Your task to perform on an android device: Go to Google maps Image 0: 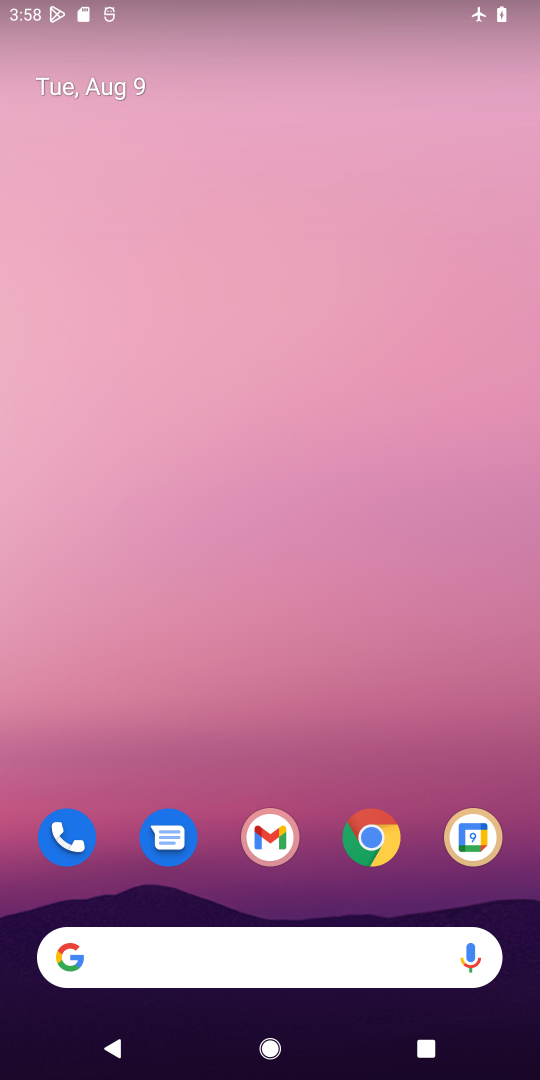
Step 0: drag from (239, 974) to (310, 310)
Your task to perform on an android device: Go to Google maps Image 1: 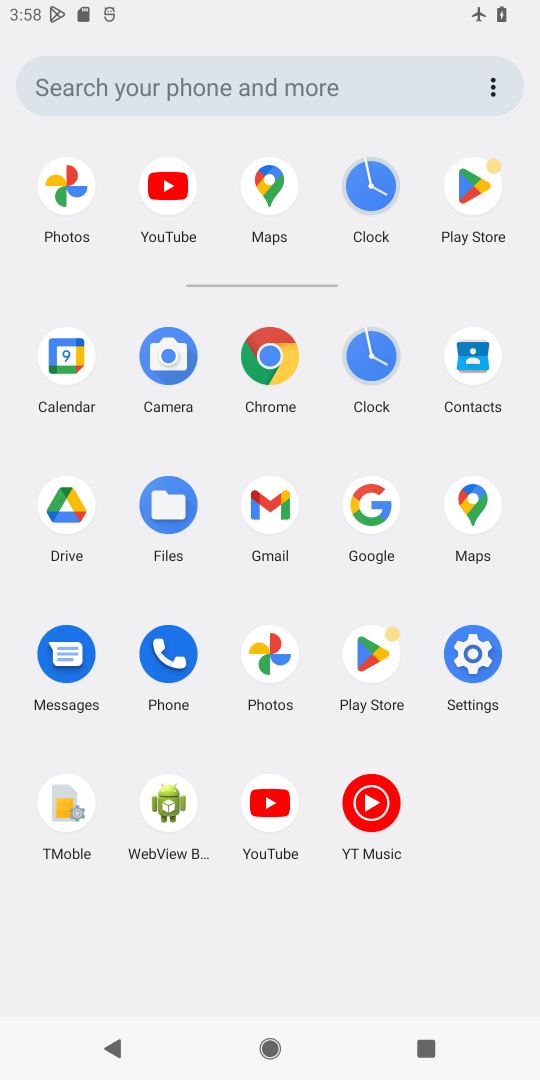
Step 1: click (461, 508)
Your task to perform on an android device: Go to Google maps Image 2: 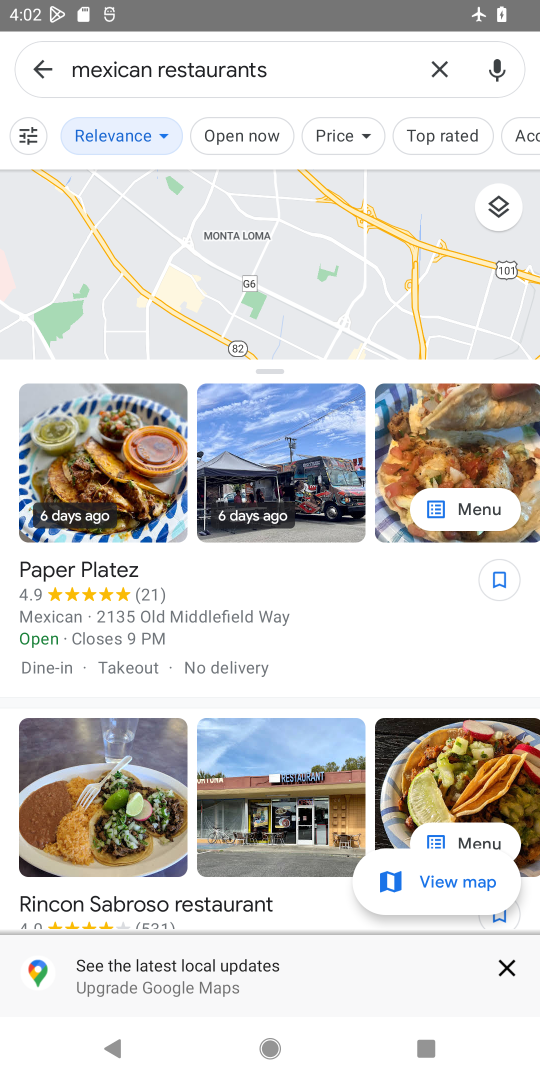
Step 2: task complete